Your task to perform on an android device: Go to internet settings Image 0: 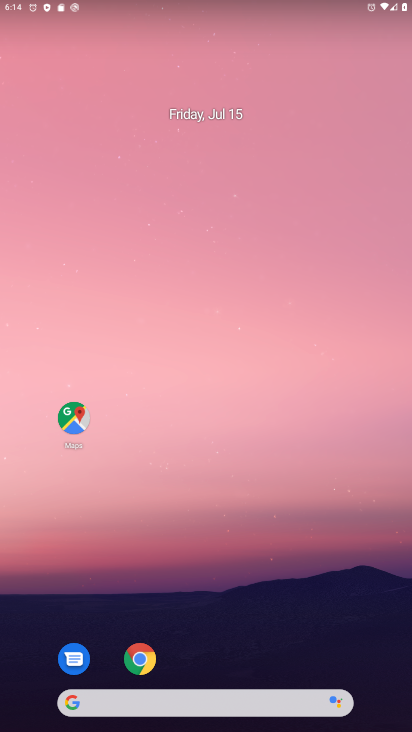
Step 0: click (295, 101)
Your task to perform on an android device: Go to internet settings Image 1: 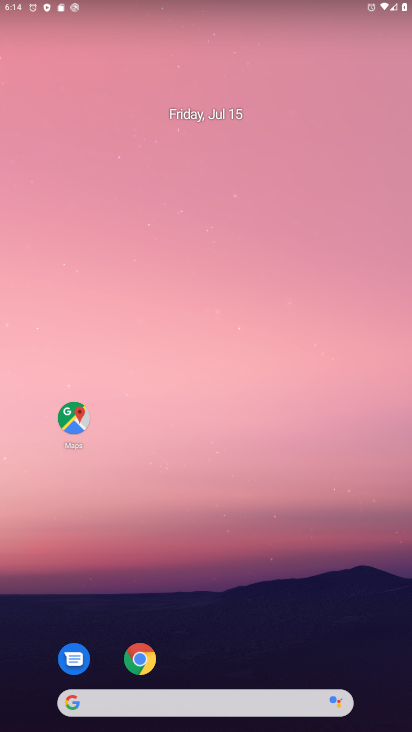
Step 1: drag from (374, 656) to (318, 182)
Your task to perform on an android device: Go to internet settings Image 2: 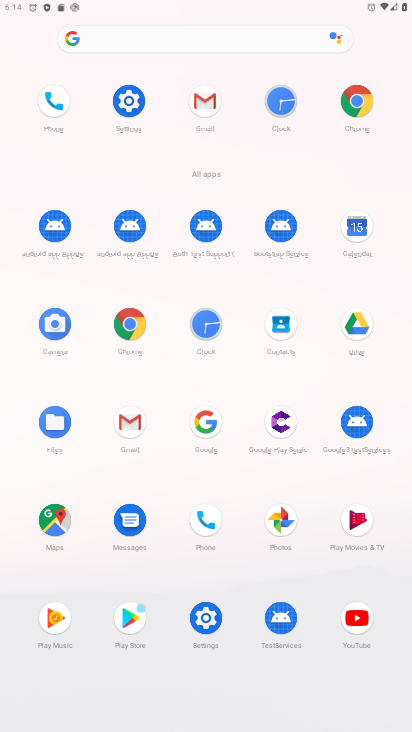
Step 2: click (203, 621)
Your task to perform on an android device: Go to internet settings Image 3: 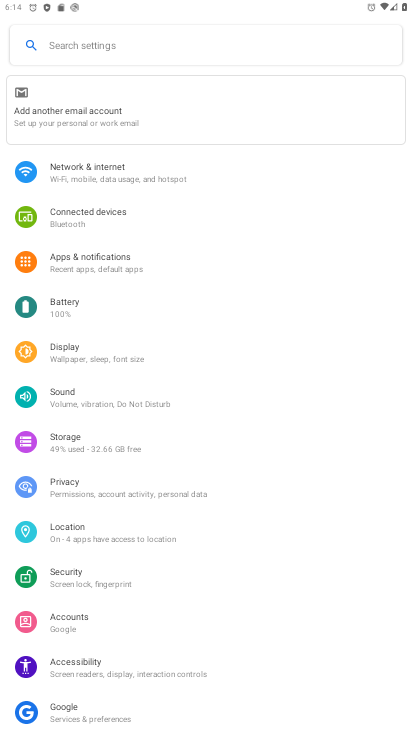
Step 3: click (87, 170)
Your task to perform on an android device: Go to internet settings Image 4: 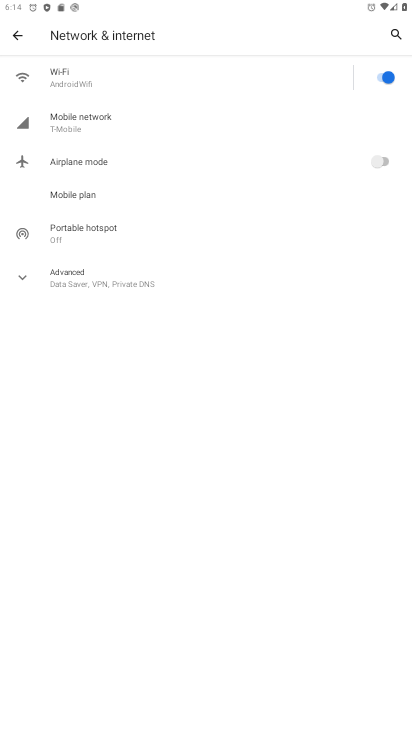
Step 4: click (60, 76)
Your task to perform on an android device: Go to internet settings Image 5: 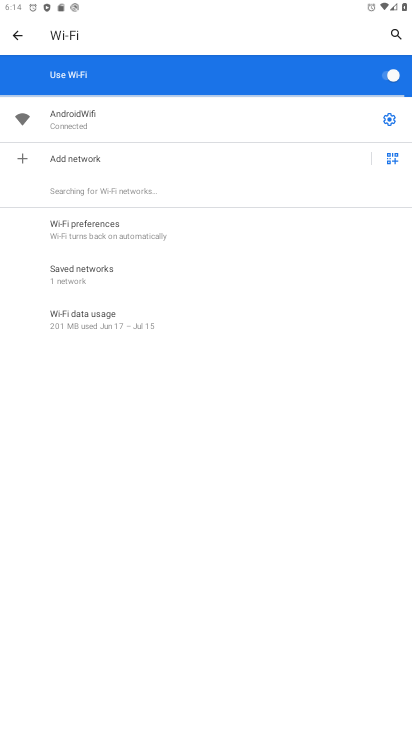
Step 5: click (390, 116)
Your task to perform on an android device: Go to internet settings Image 6: 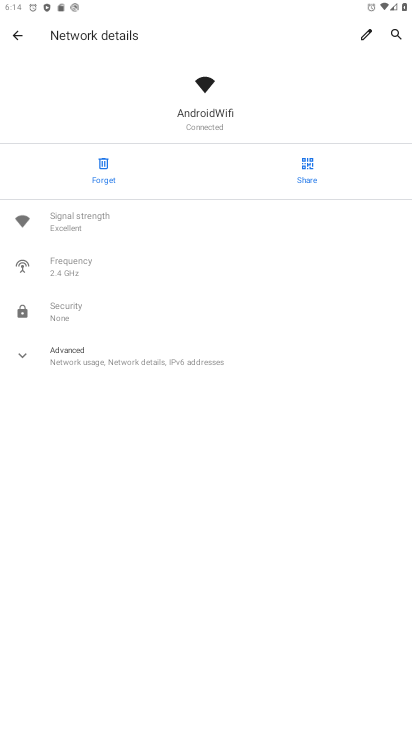
Step 6: task complete